Your task to perform on an android device: Go to Google Image 0: 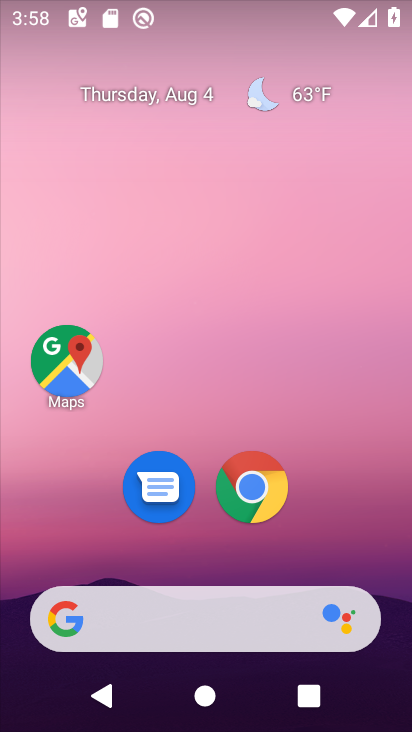
Step 0: drag from (162, 483) to (230, 22)
Your task to perform on an android device: Go to Google Image 1: 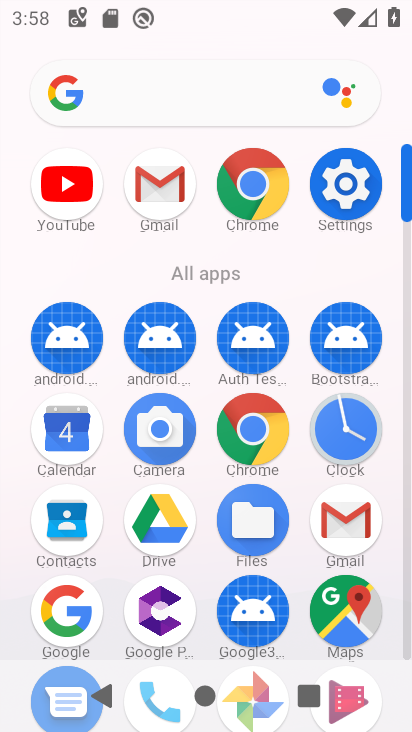
Step 1: click (67, 614)
Your task to perform on an android device: Go to Google Image 2: 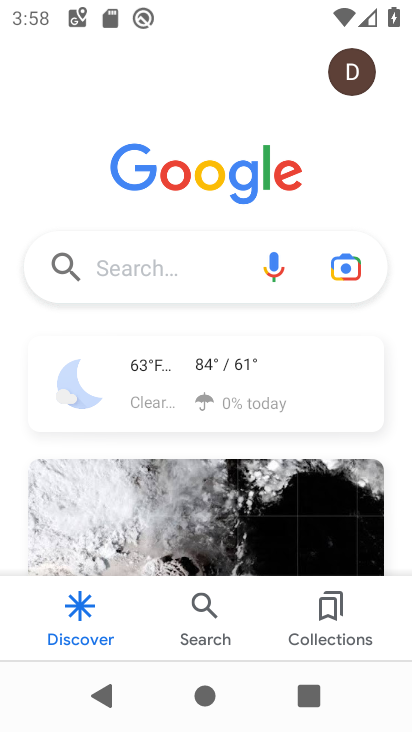
Step 2: task complete